Your task to perform on an android device: Open sound settings Image 0: 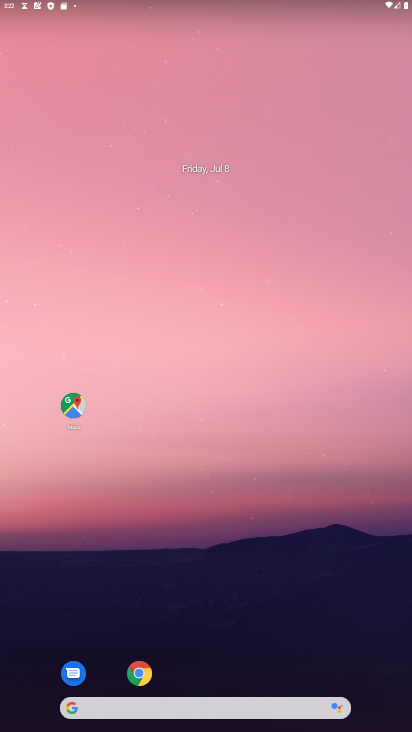
Step 0: drag from (199, 627) to (266, 8)
Your task to perform on an android device: Open sound settings Image 1: 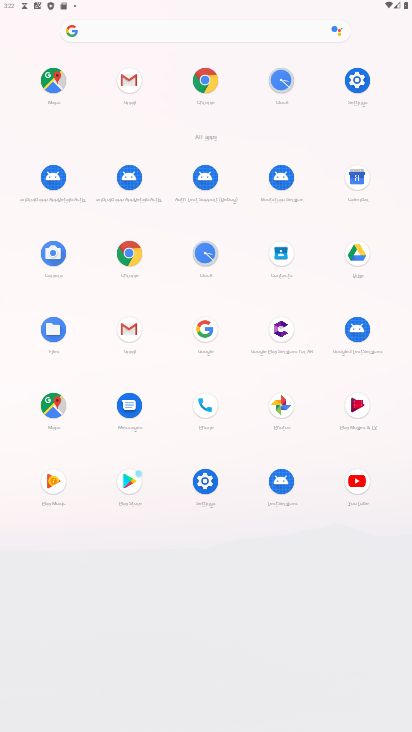
Step 1: click (209, 483)
Your task to perform on an android device: Open sound settings Image 2: 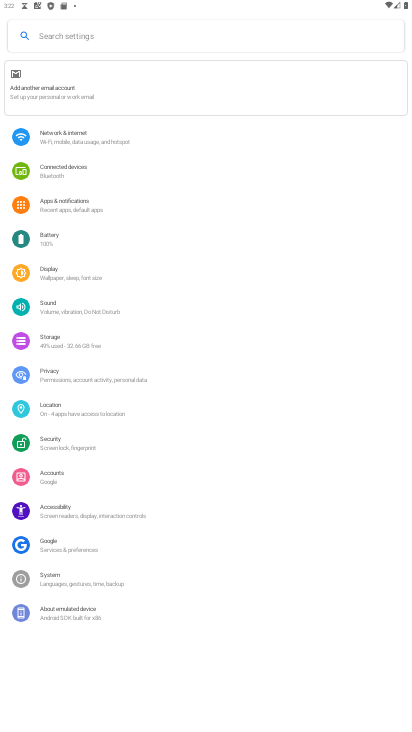
Step 2: click (84, 310)
Your task to perform on an android device: Open sound settings Image 3: 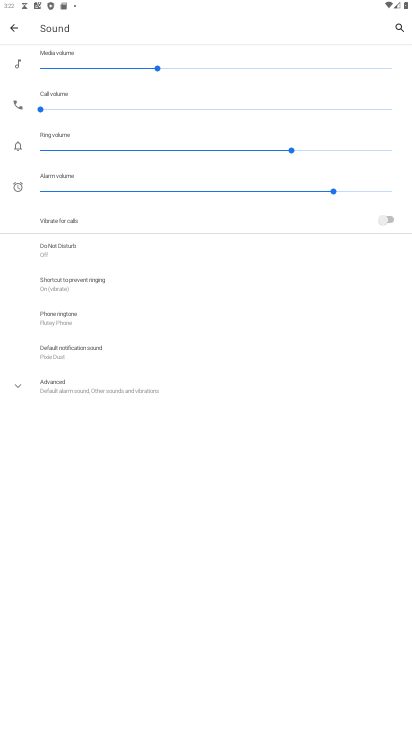
Step 3: task complete